Your task to perform on an android device: turn on the 12-hour format for clock Image 0: 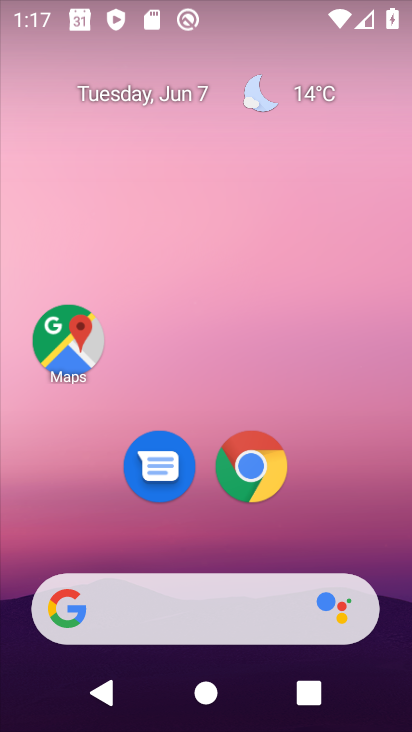
Step 0: drag from (226, 470) to (275, 0)
Your task to perform on an android device: turn on the 12-hour format for clock Image 1: 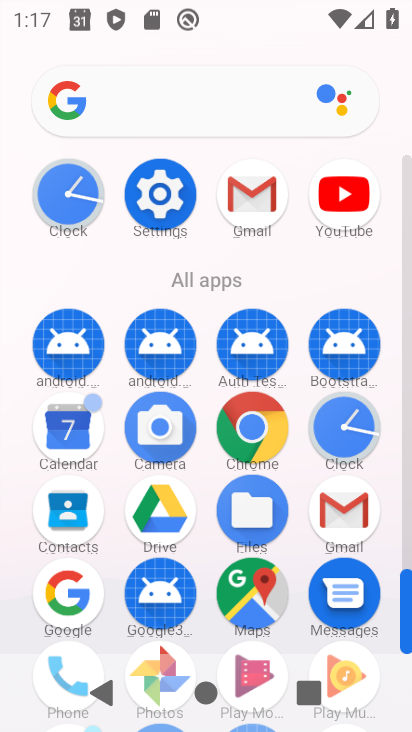
Step 1: click (347, 437)
Your task to perform on an android device: turn on the 12-hour format for clock Image 2: 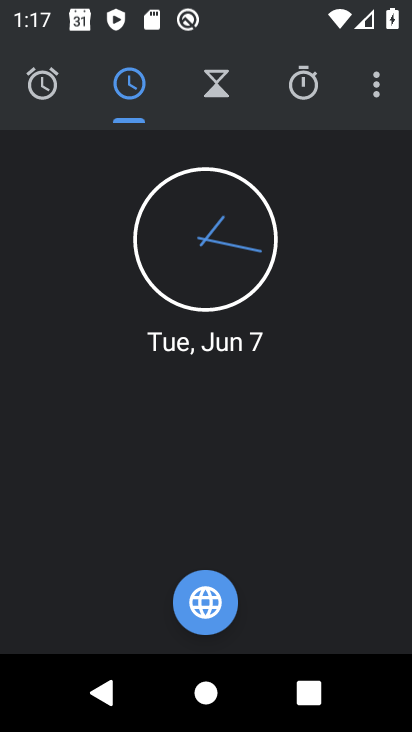
Step 2: click (383, 76)
Your task to perform on an android device: turn on the 12-hour format for clock Image 3: 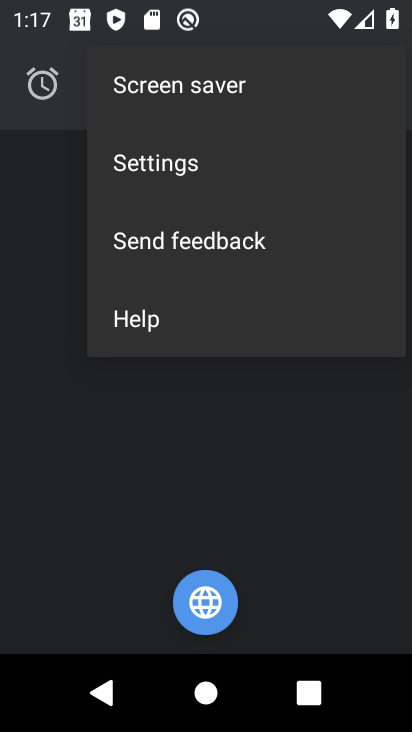
Step 3: click (158, 141)
Your task to perform on an android device: turn on the 12-hour format for clock Image 4: 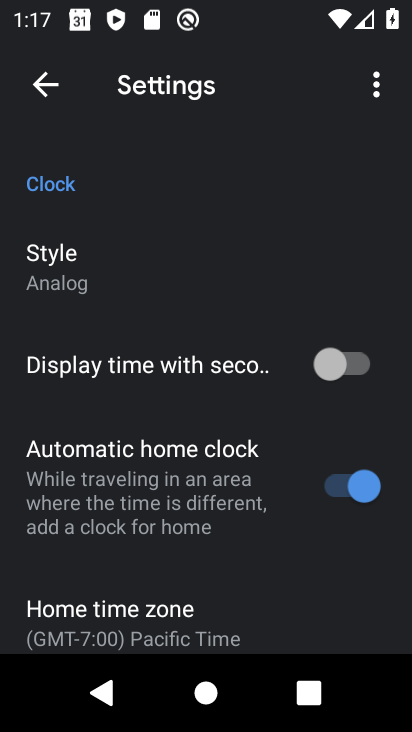
Step 4: drag from (186, 534) to (226, 176)
Your task to perform on an android device: turn on the 12-hour format for clock Image 5: 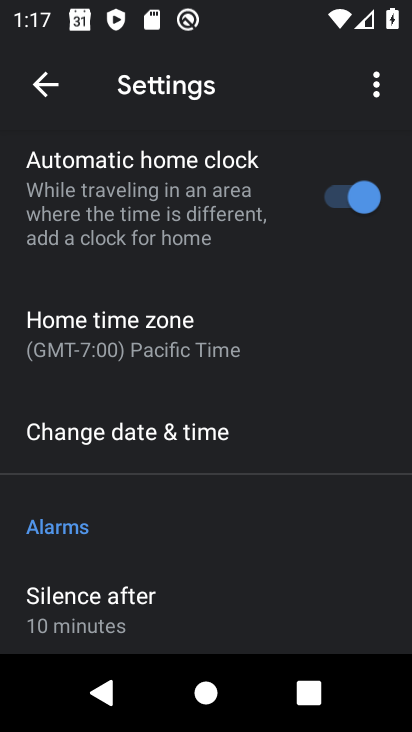
Step 5: click (120, 442)
Your task to perform on an android device: turn on the 12-hour format for clock Image 6: 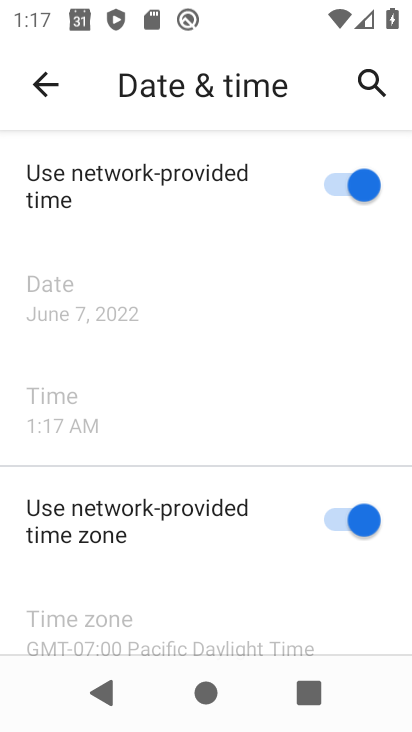
Step 6: task complete